Your task to perform on an android device: Go to Amazon Image 0: 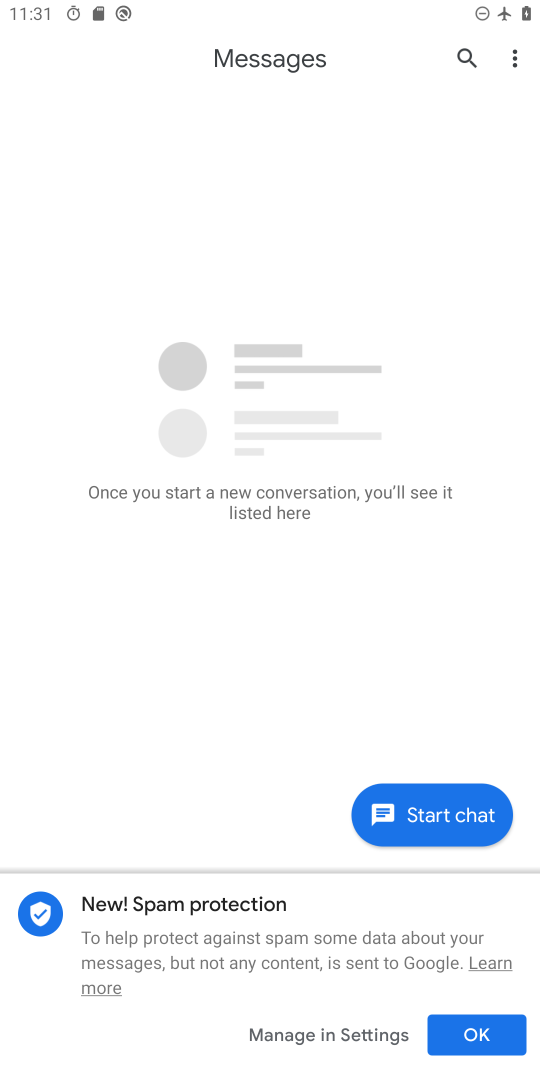
Step 0: press home button
Your task to perform on an android device: Go to Amazon Image 1: 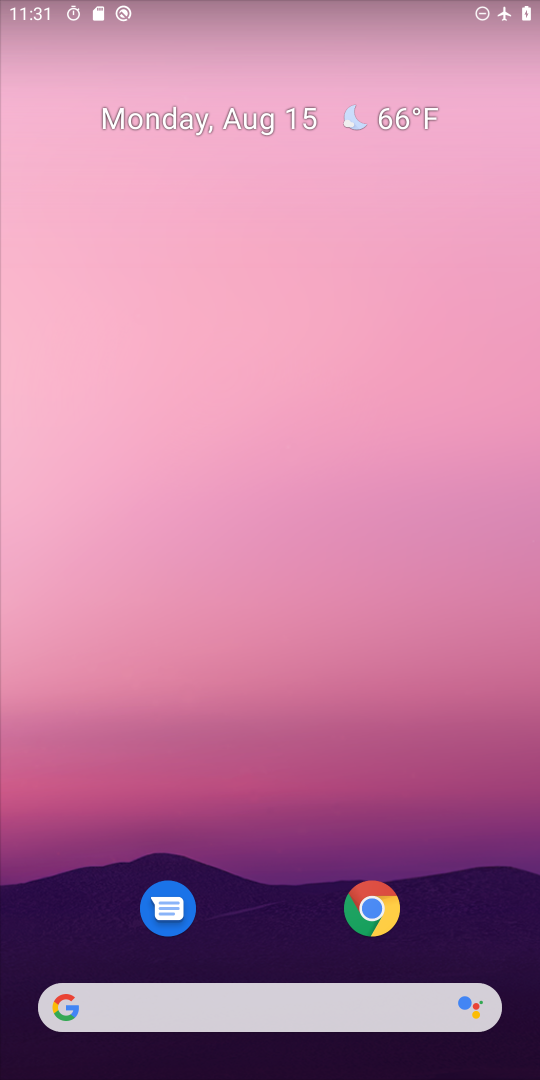
Step 1: click (387, 911)
Your task to perform on an android device: Go to Amazon Image 2: 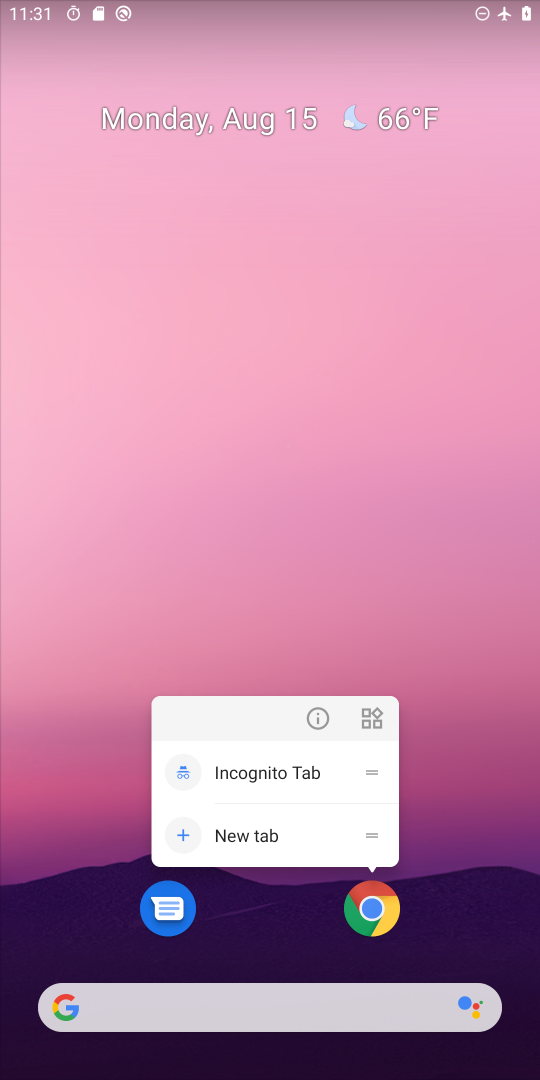
Step 2: click (374, 911)
Your task to perform on an android device: Go to Amazon Image 3: 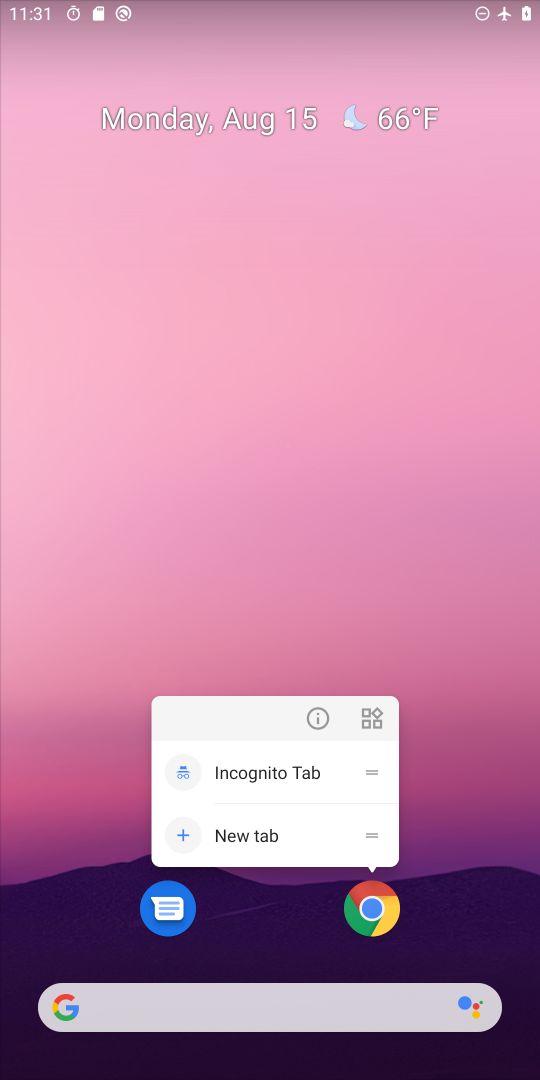
Step 3: click (370, 911)
Your task to perform on an android device: Go to Amazon Image 4: 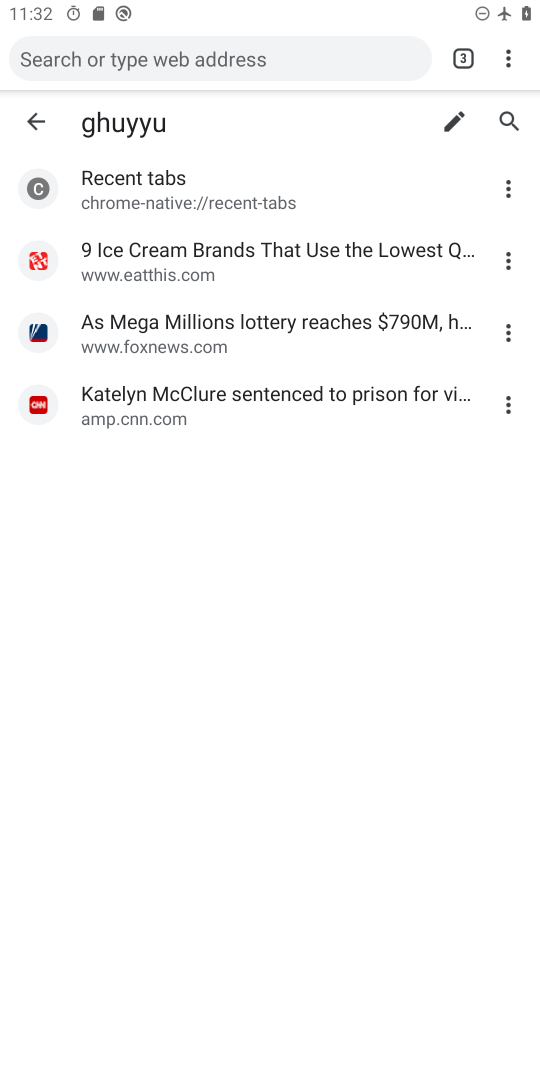
Step 4: click (473, 56)
Your task to perform on an android device: Go to Amazon Image 5: 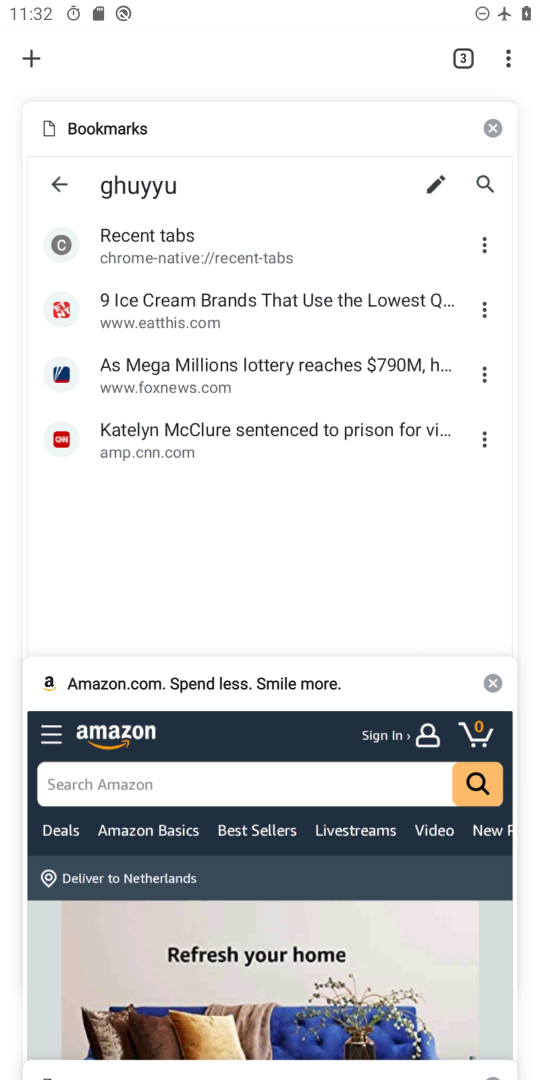
Step 5: click (160, 739)
Your task to perform on an android device: Go to Amazon Image 6: 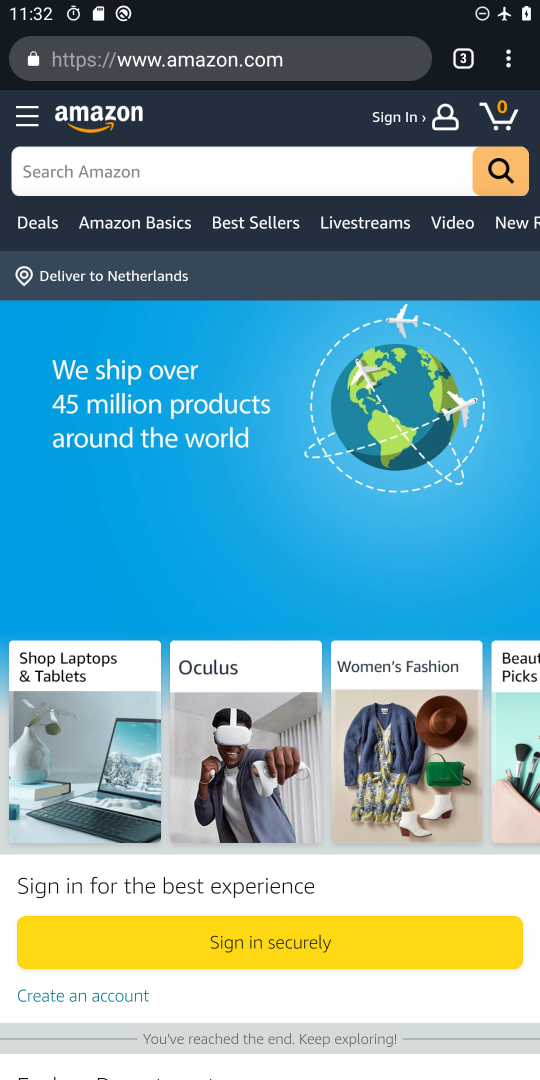
Step 6: task complete